Your task to perform on an android device: turn on the 12-hour format for clock Image 0: 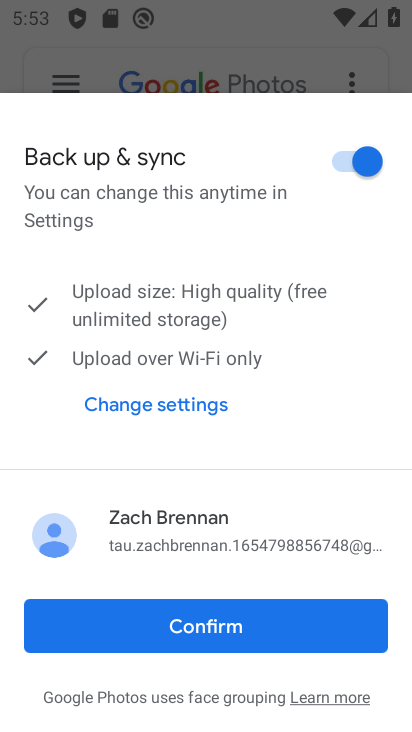
Step 0: press home button
Your task to perform on an android device: turn on the 12-hour format for clock Image 1: 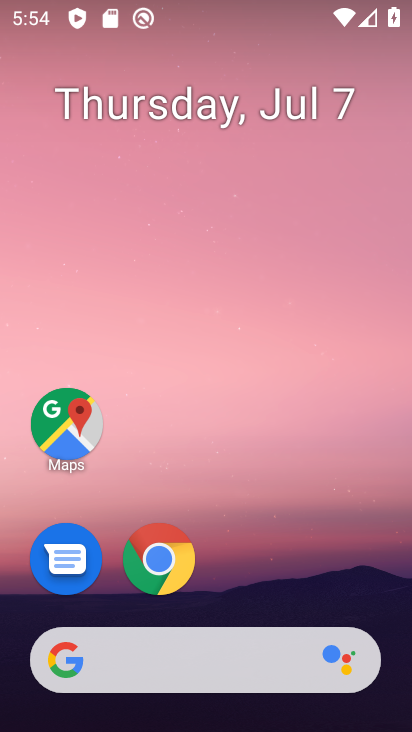
Step 1: drag from (333, 629) to (289, 250)
Your task to perform on an android device: turn on the 12-hour format for clock Image 2: 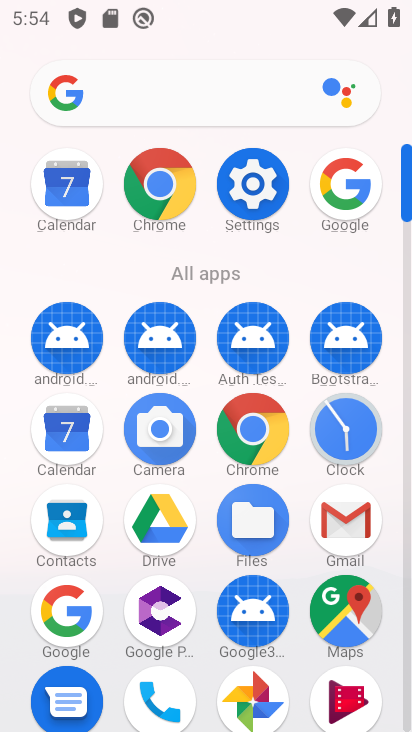
Step 2: click (344, 436)
Your task to perform on an android device: turn on the 12-hour format for clock Image 3: 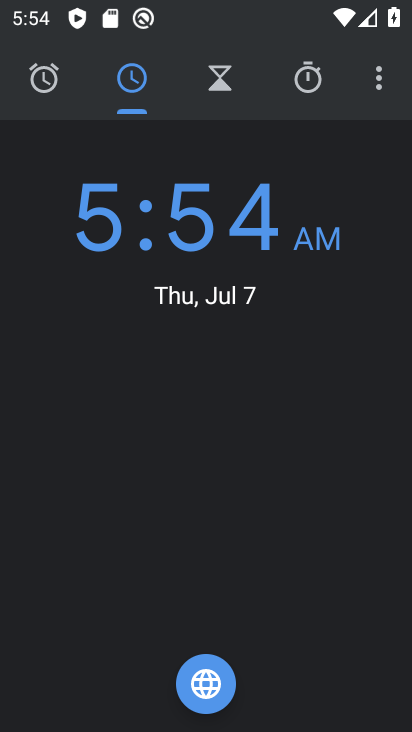
Step 3: click (376, 83)
Your task to perform on an android device: turn on the 12-hour format for clock Image 4: 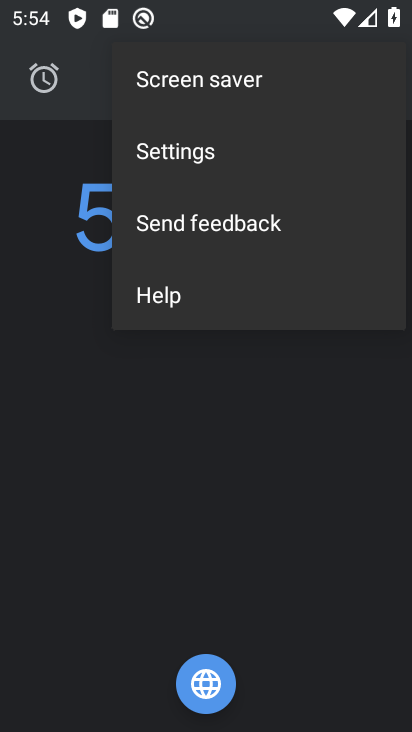
Step 4: click (218, 157)
Your task to perform on an android device: turn on the 12-hour format for clock Image 5: 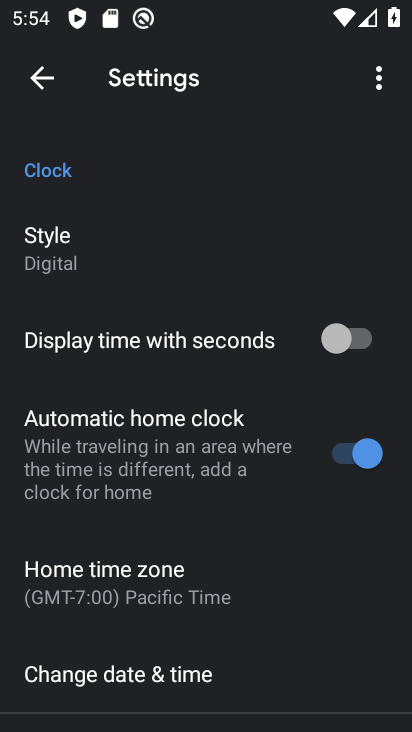
Step 5: click (163, 672)
Your task to perform on an android device: turn on the 12-hour format for clock Image 6: 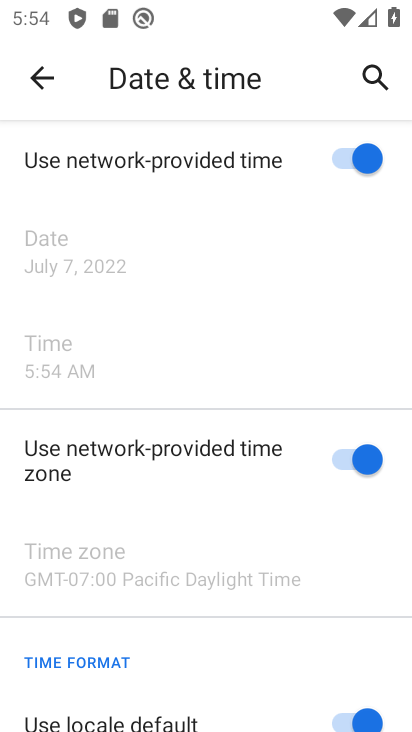
Step 6: task complete